Your task to perform on an android device: Open the calendar and show me this week's events? Image 0: 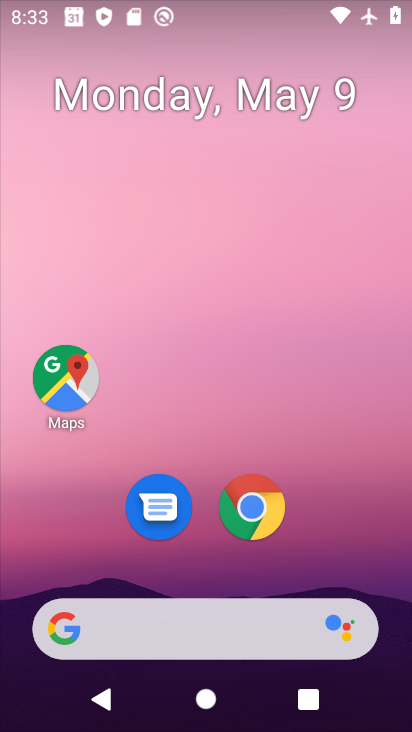
Step 0: drag from (192, 524) to (228, 67)
Your task to perform on an android device: Open the calendar and show me this week's events? Image 1: 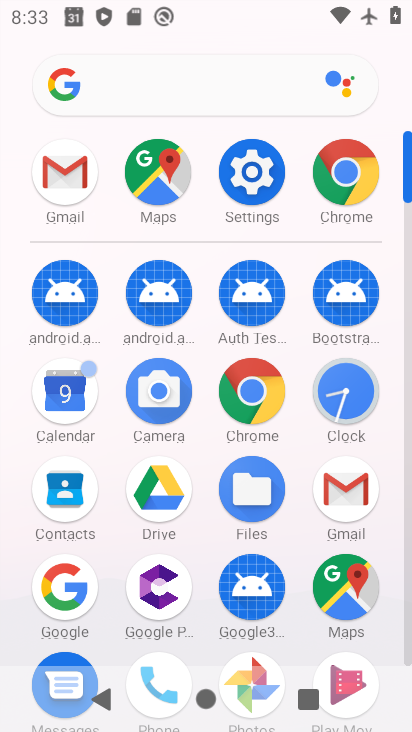
Step 1: click (91, 400)
Your task to perform on an android device: Open the calendar and show me this week's events? Image 2: 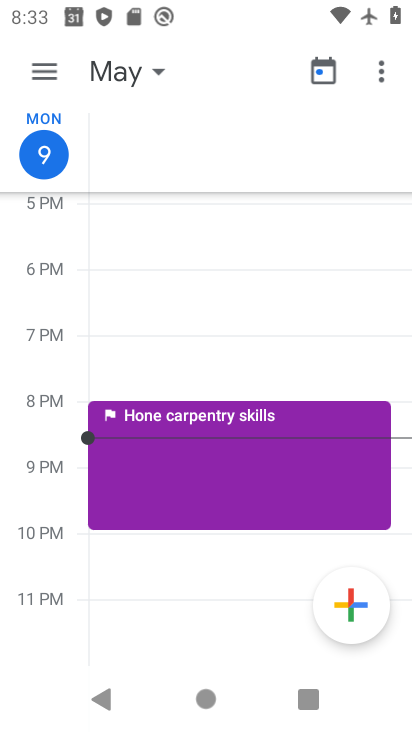
Step 2: click (50, 72)
Your task to perform on an android device: Open the calendar and show me this week's events? Image 3: 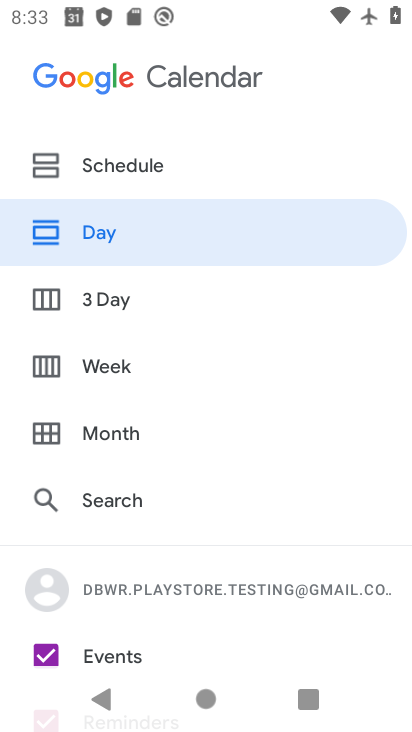
Step 3: click (121, 352)
Your task to perform on an android device: Open the calendar and show me this week's events? Image 4: 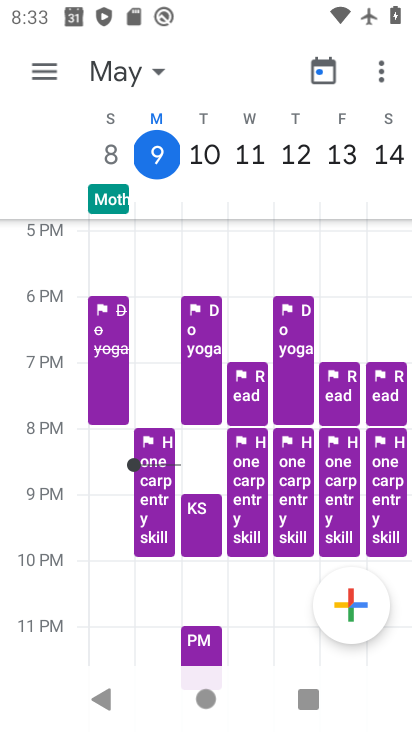
Step 4: task complete